Your task to perform on an android device: check battery use Image 0: 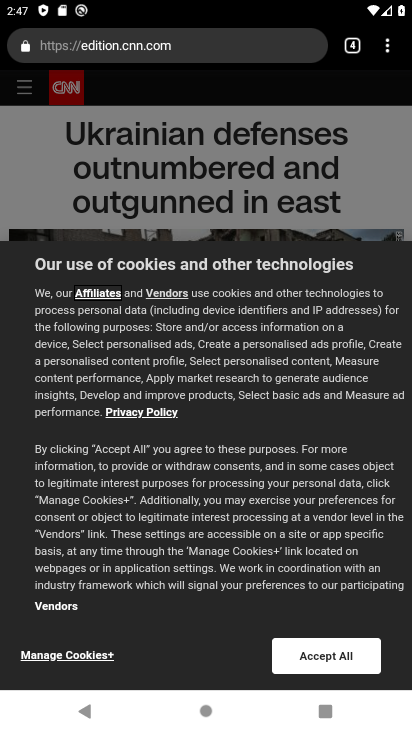
Step 0: press back button
Your task to perform on an android device: check battery use Image 1: 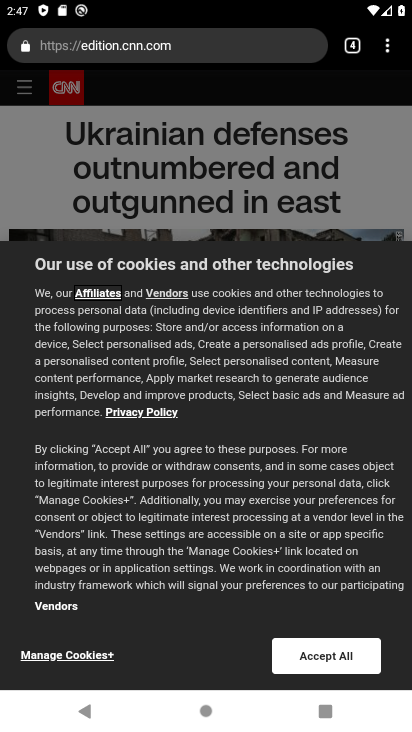
Step 1: press back button
Your task to perform on an android device: check battery use Image 2: 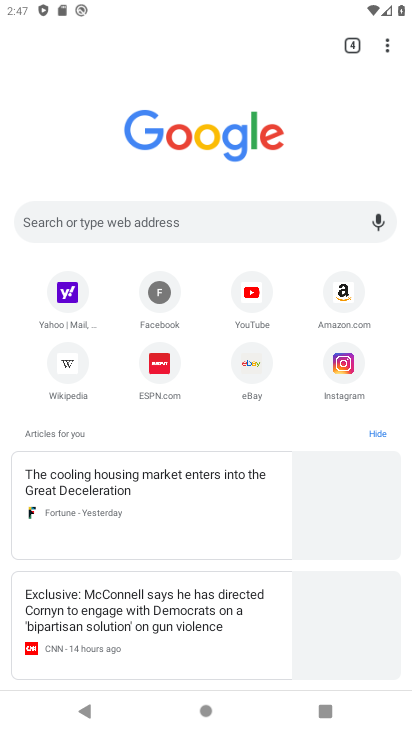
Step 2: press back button
Your task to perform on an android device: check battery use Image 3: 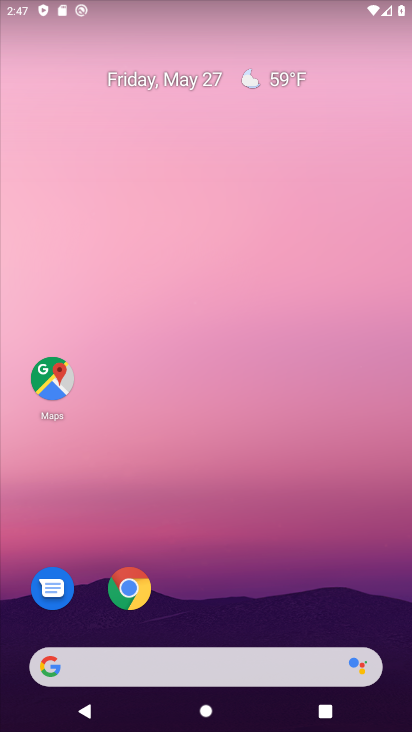
Step 3: drag from (246, 548) to (198, 19)
Your task to perform on an android device: check battery use Image 4: 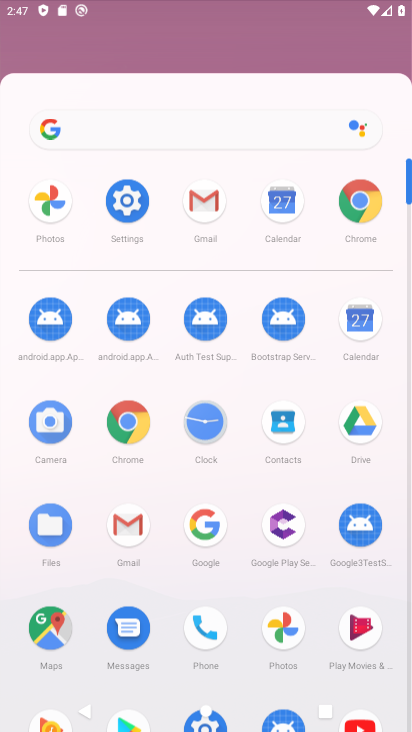
Step 4: drag from (221, 248) to (182, 57)
Your task to perform on an android device: check battery use Image 5: 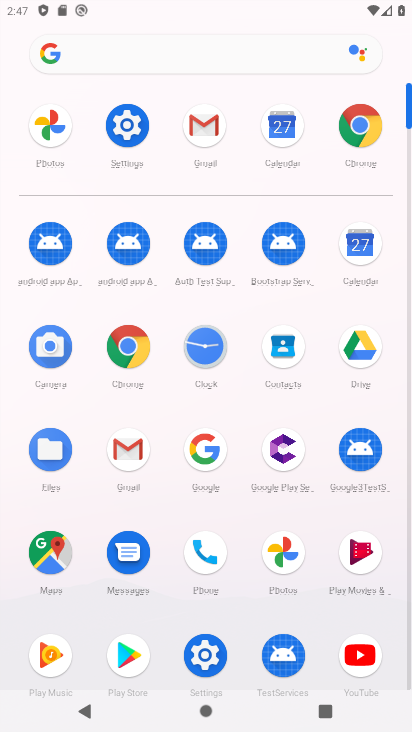
Step 5: drag from (203, 401) to (188, 101)
Your task to perform on an android device: check battery use Image 6: 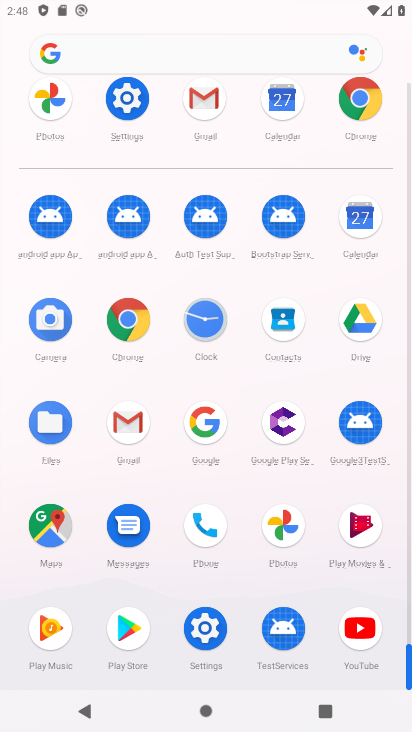
Step 6: click (201, 616)
Your task to perform on an android device: check battery use Image 7: 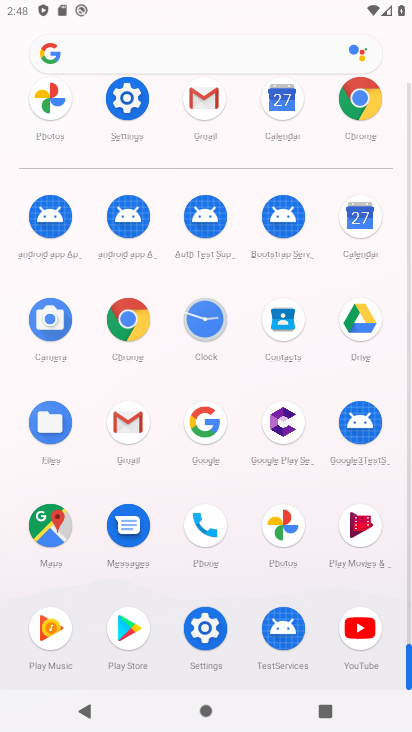
Step 7: click (202, 621)
Your task to perform on an android device: check battery use Image 8: 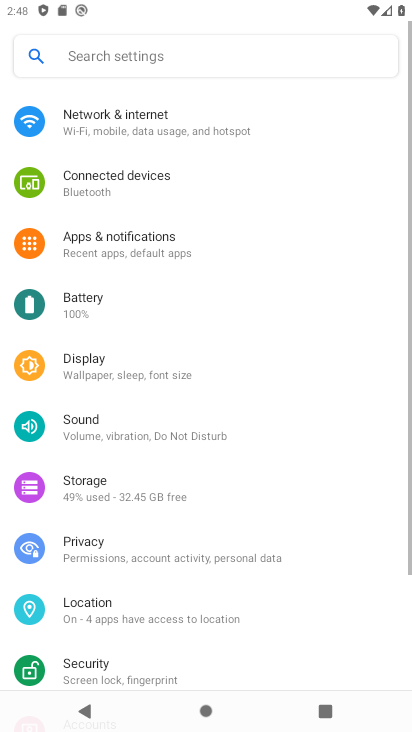
Step 8: click (204, 628)
Your task to perform on an android device: check battery use Image 9: 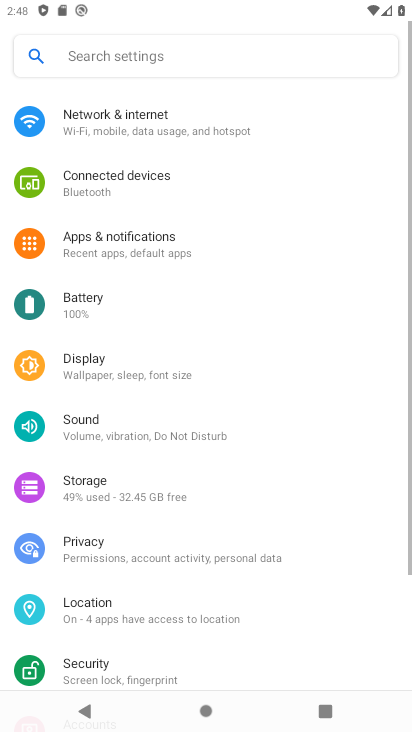
Step 9: click (203, 620)
Your task to perform on an android device: check battery use Image 10: 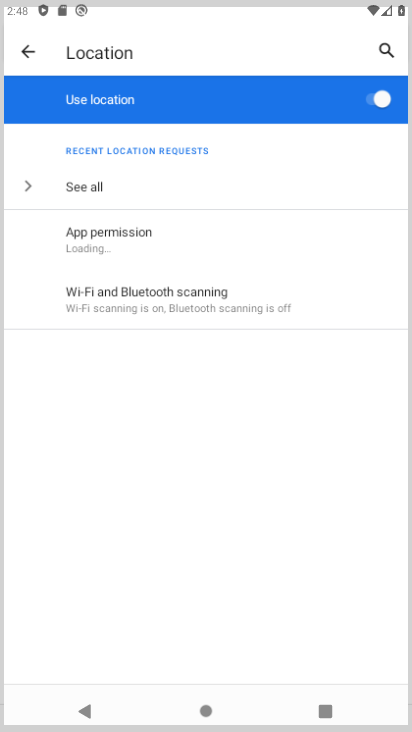
Step 10: click (203, 623)
Your task to perform on an android device: check battery use Image 11: 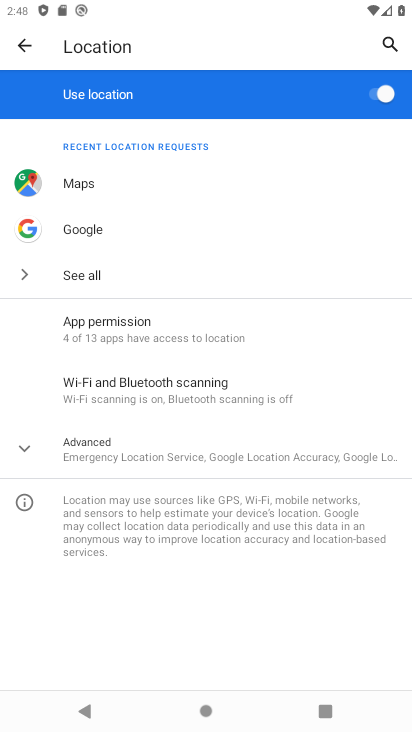
Step 11: press back button
Your task to perform on an android device: check battery use Image 12: 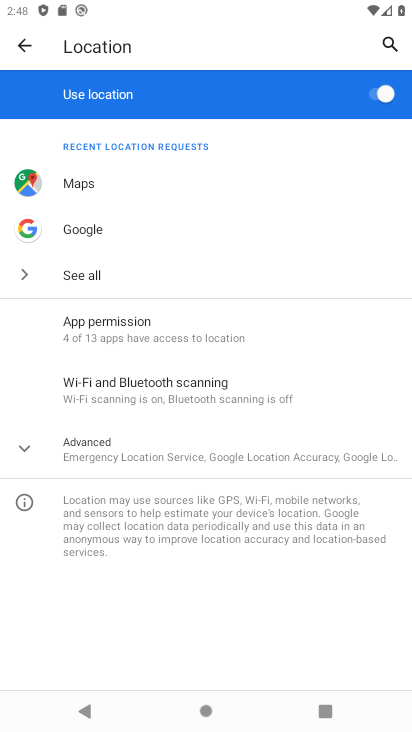
Step 12: press back button
Your task to perform on an android device: check battery use Image 13: 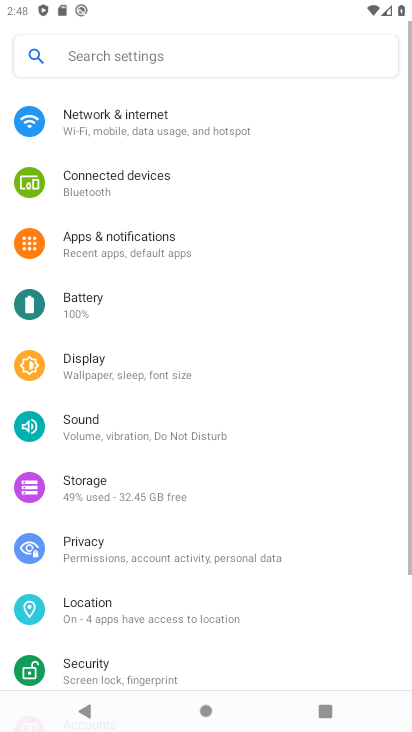
Step 13: press back button
Your task to perform on an android device: check battery use Image 14: 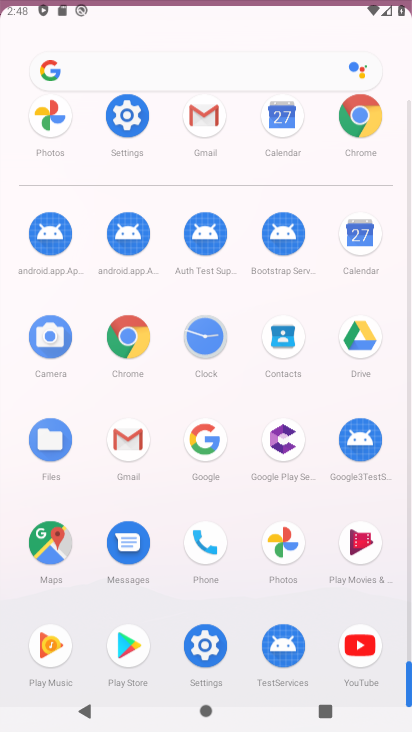
Step 14: press back button
Your task to perform on an android device: check battery use Image 15: 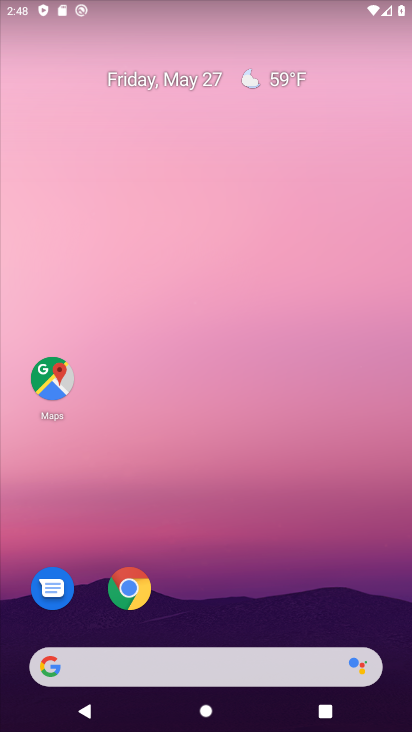
Step 15: click (210, 142)
Your task to perform on an android device: check battery use Image 16: 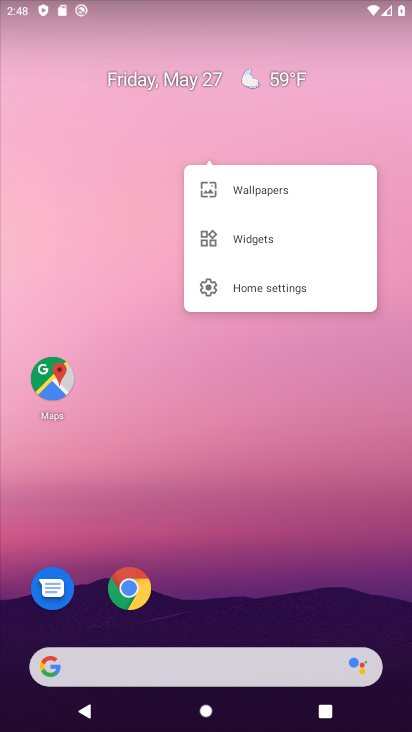
Step 16: click (215, 169)
Your task to perform on an android device: check battery use Image 17: 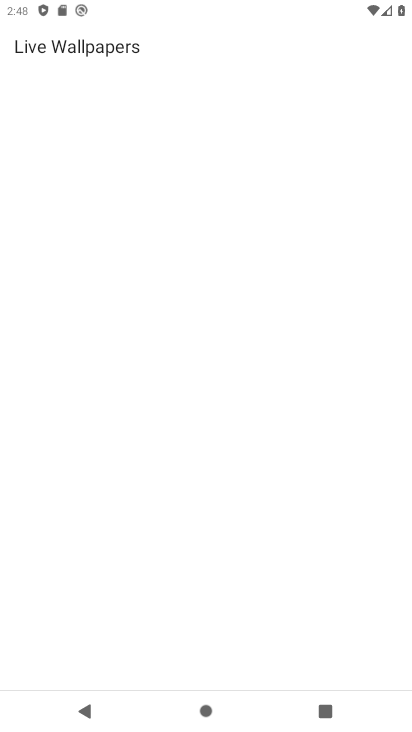
Step 17: drag from (221, 328) to (244, 22)
Your task to perform on an android device: check battery use Image 18: 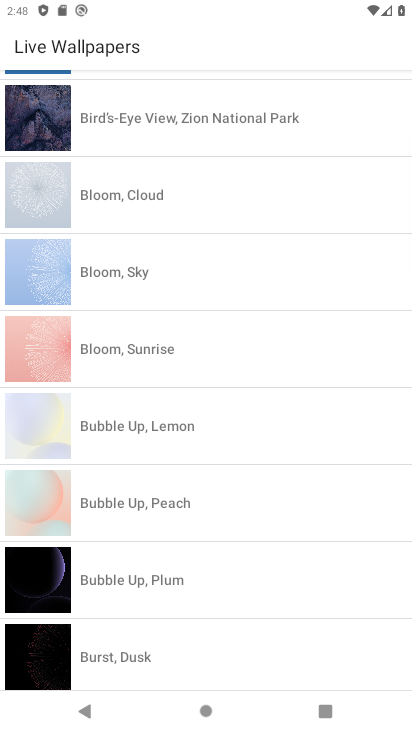
Step 18: press back button
Your task to perform on an android device: check battery use Image 19: 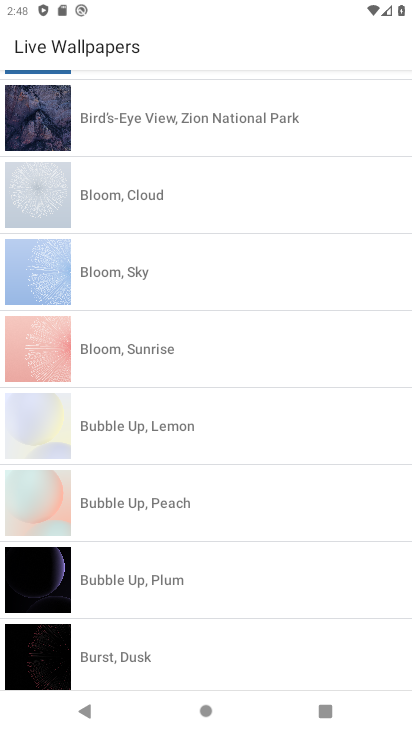
Step 19: press back button
Your task to perform on an android device: check battery use Image 20: 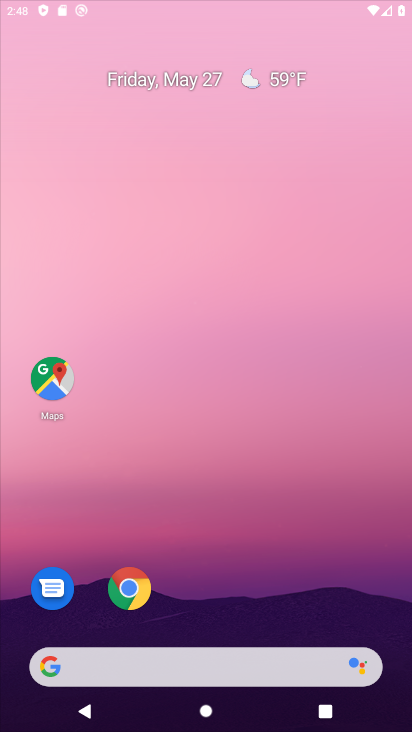
Step 20: press back button
Your task to perform on an android device: check battery use Image 21: 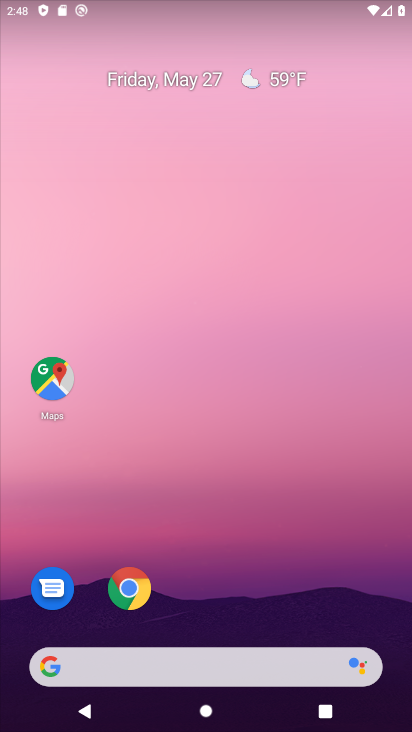
Step 21: drag from (253, 686) to (173, 104)
Your task to perform on an android device: check battery use Image 22: 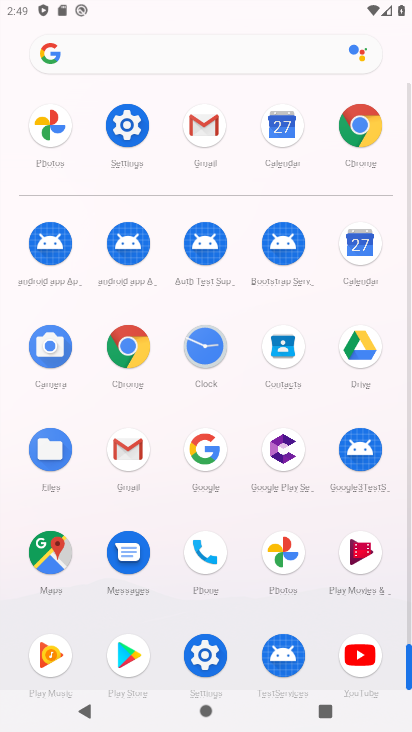
Step 22: click (205, 654)
Your task to perform on an android device: check battery use Image 23: 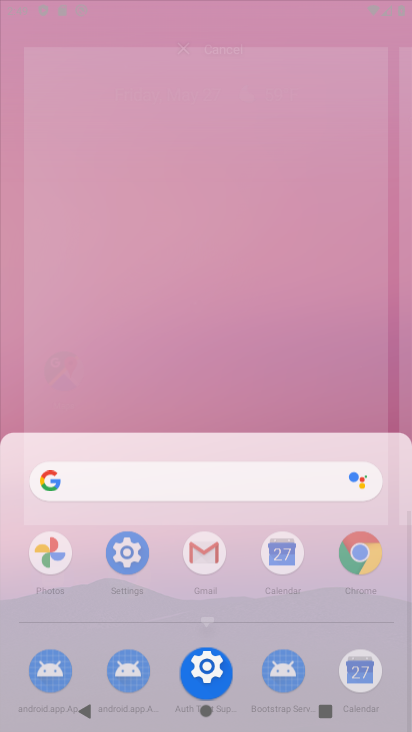
Step 23: click (205, 681)
Your task to perform on an android device: check battery use Image 24: 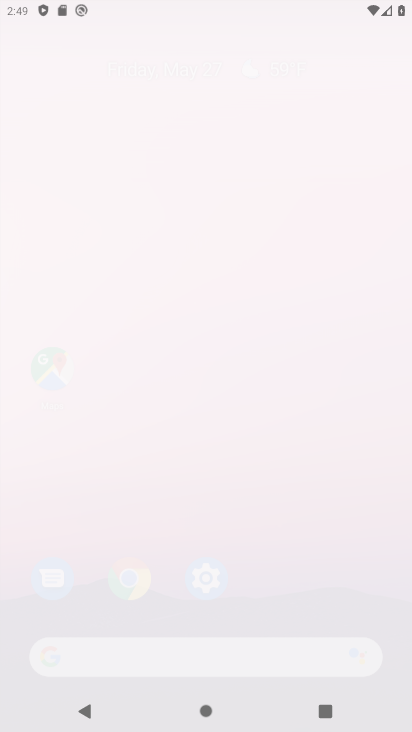
Step 24: click (201, 658)
Your task to perform on an android device: check battery use Image 25: 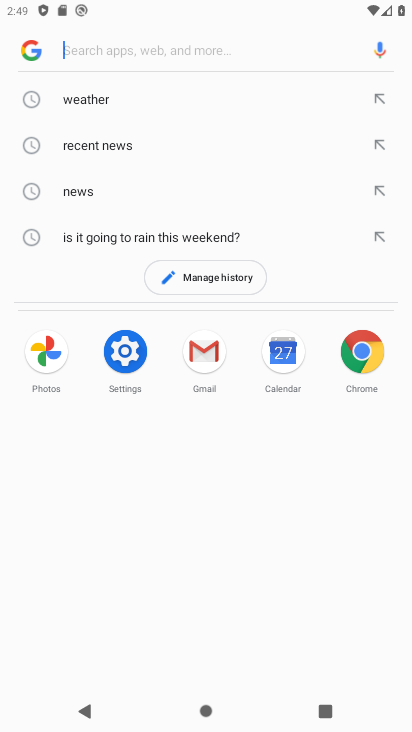
Step 25: click (204, 658)
Your task to perform on an android device: check battery use Image 26: 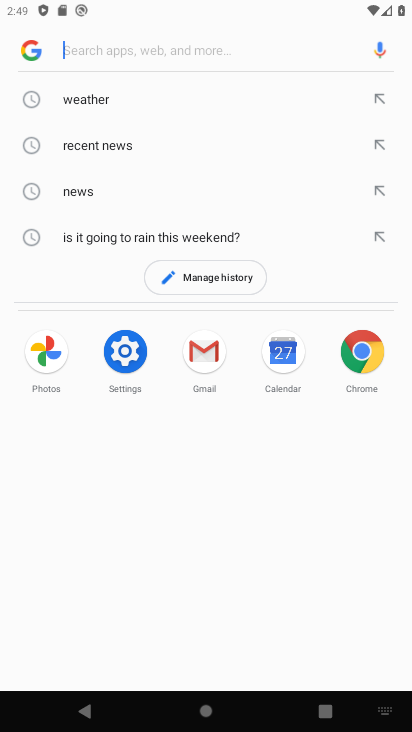
Step 26: click (213, 663)
Your task to perform on an android device: check battery use Image 27: 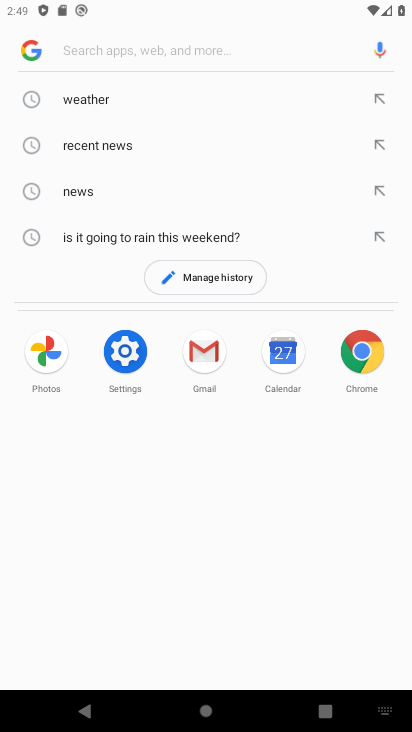
Step 27: click (209, 647)
Your task to perform on an android device: check battery use Image 28: 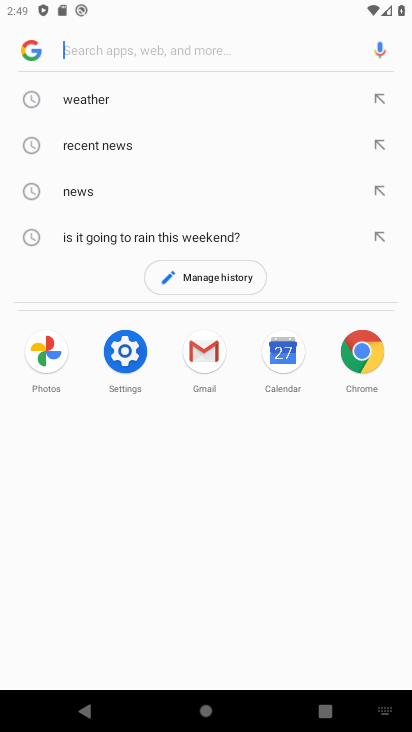
Step 28: click (130, 348)
Your task to perform on an android device: check battery use Image 29: 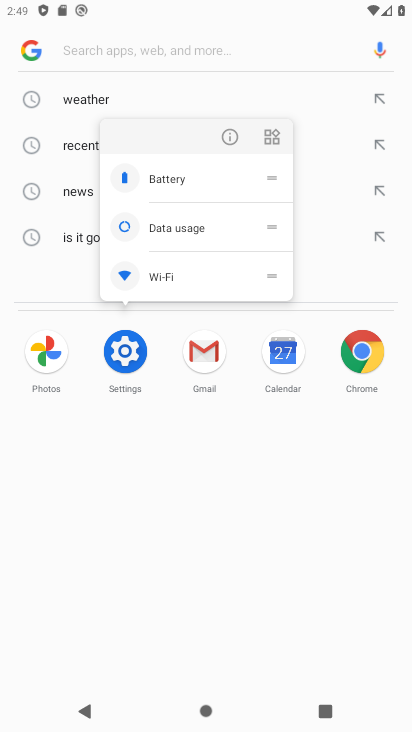
Step 29: click (133, 365)
Your task to perform on an android device: check battery use Image 30: 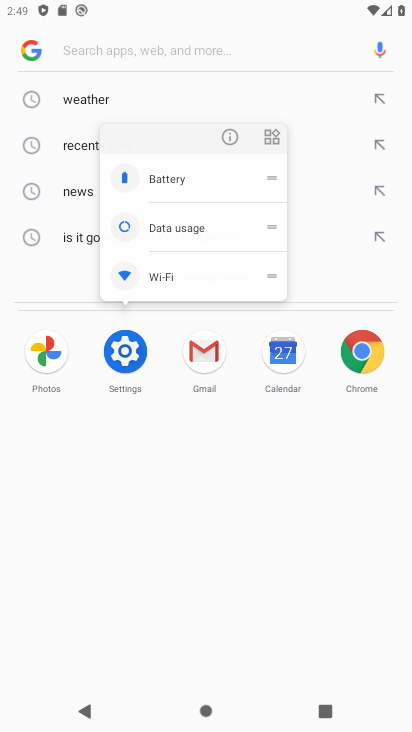
Step 30: click (133, 365)
Your task to perform on an android device: check battery use Image 31: 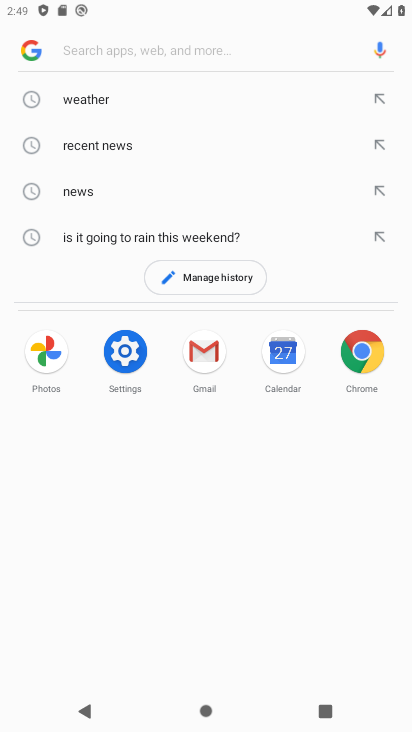
Step 31: click (133, 365)
Your task to perform on an android device: check battery use Image 32: 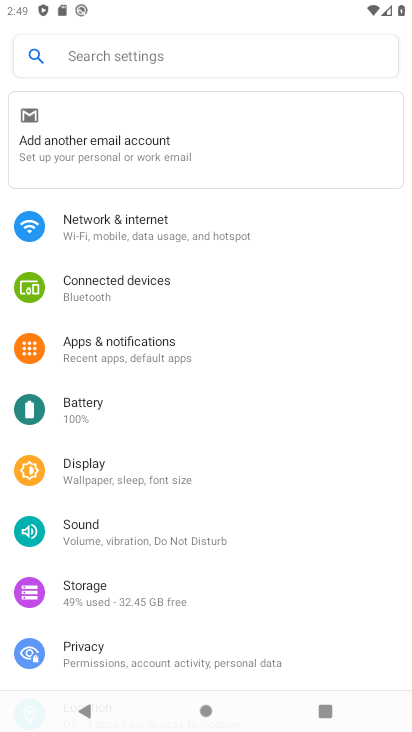
Step 32: click (70, 410)
Your task to perform on an android device: check battery use Image 33: 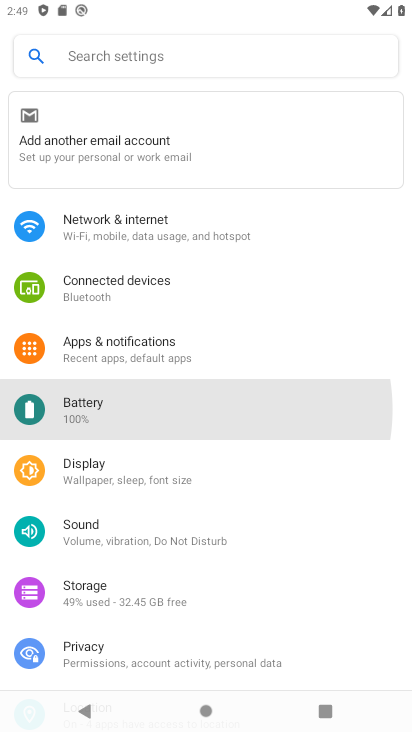
Step 33: click (70, 410)
Your task to perform on an android device: check battery use Image 34: 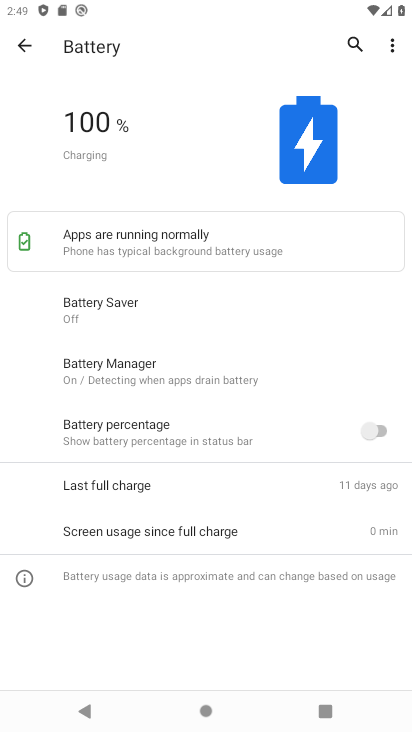
Step 34: click (78, 408)
Your task to perform on an android device: check battery use Image 35: 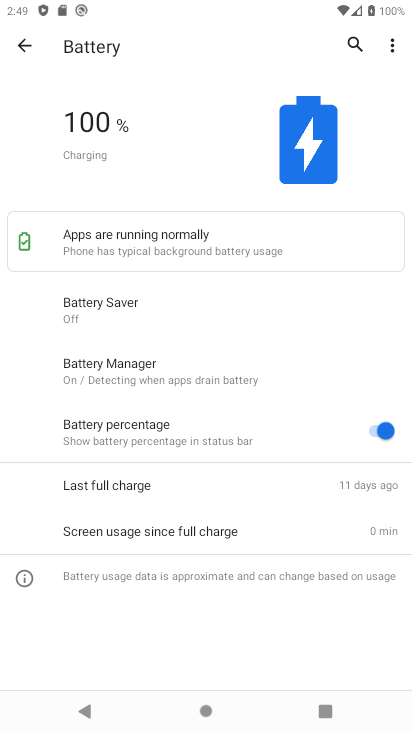
Step 35: click (25, 50)
Your task to perform on an android device: check battery use Image 36: 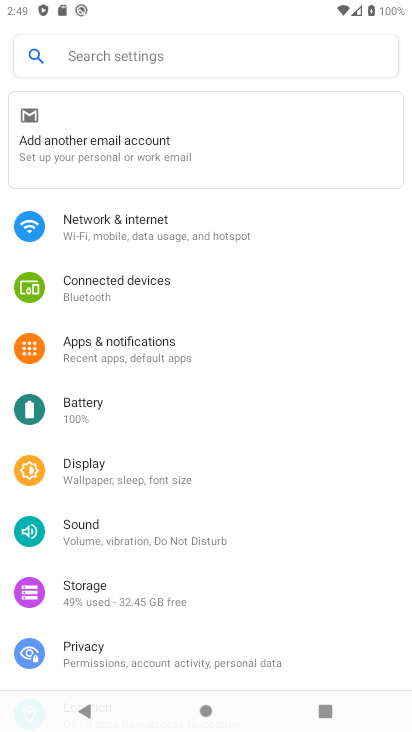
Step 36: drag from (152, 521) to (105, 204)
Your task to perform on an android device: check battery use Image 37: 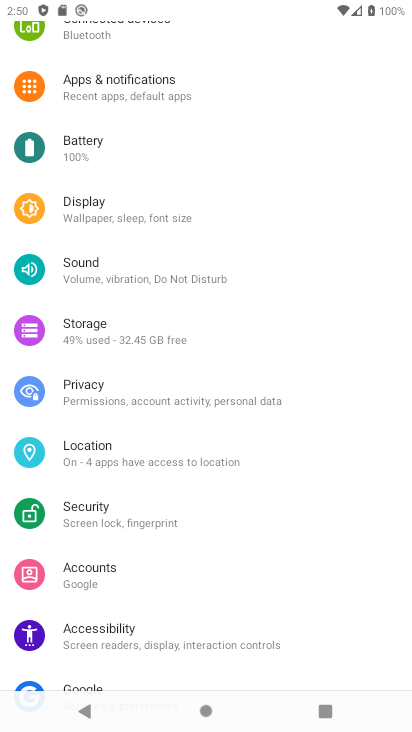
Step 37: click (84, 149)
Your task to perform on an android device: check battery use Image 38: 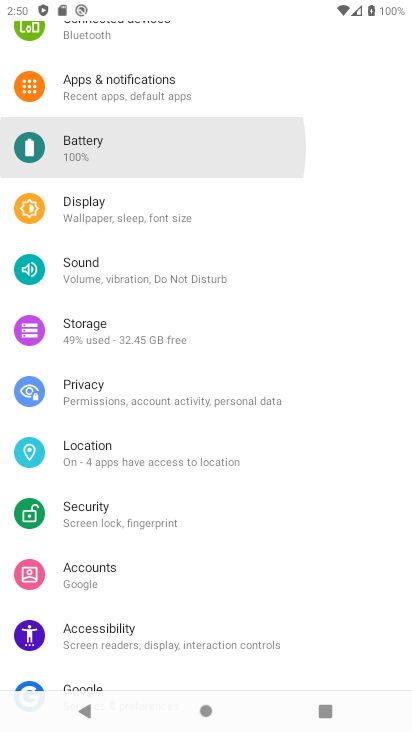
Step 38: click (84, 149)
Your task to perform on an android device: check battery use Image 39: 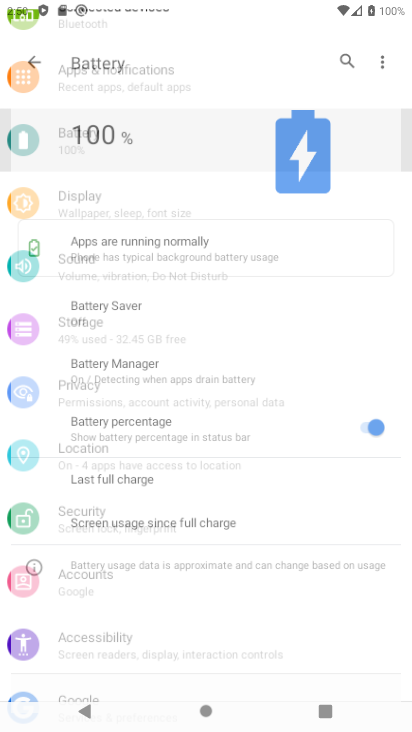
Step 39: click (84, 149)
Your task to perform on an android device: check battery use Image 40: 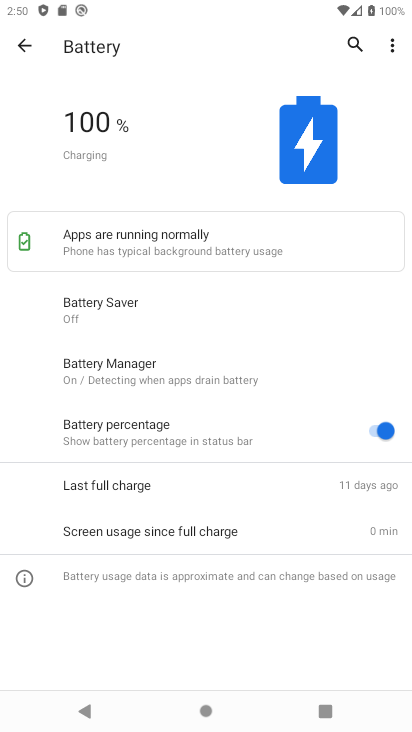
Step 40: click (84, 149)
Your task to perform on an android device: check battery use Image 41: 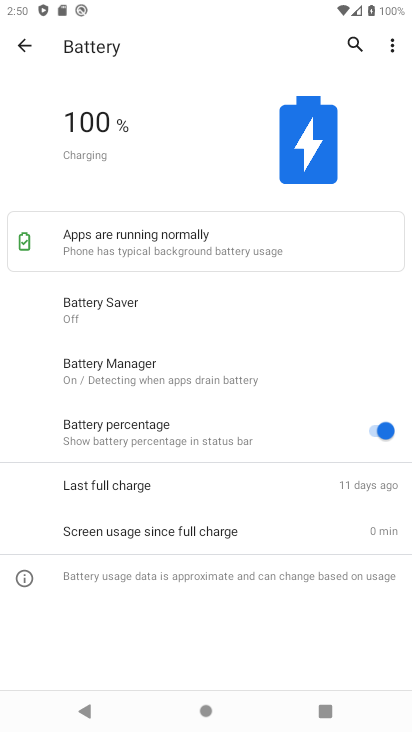
Step 41: click (84, 149)
Your task to perform on an android device: check battery use Image 42: 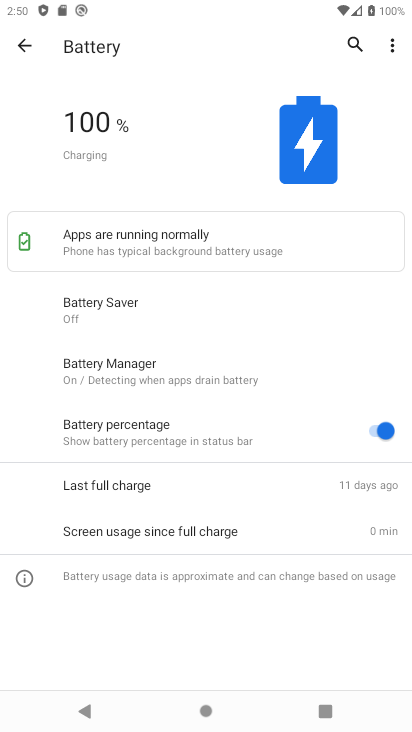
Step 42: click (84, 148)
Your task to perform on an android device: check battery use Image 43: 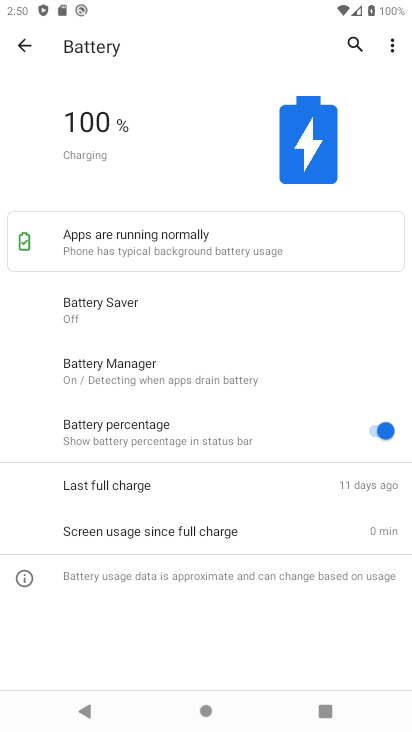
Step 43: task complete